Your task to perform on an android device: turn smart compose on in the gmail app Image 0: 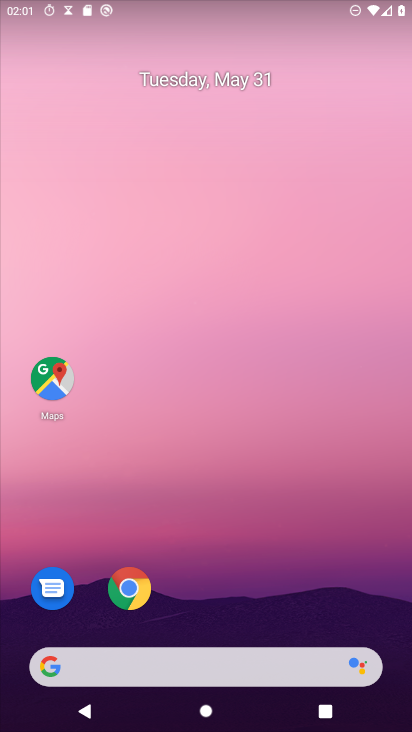
Step 0: drag from (285, 658) to (390, 26)
Your task to perform on an android device: turn smart compose on in the gmail app Image 1: 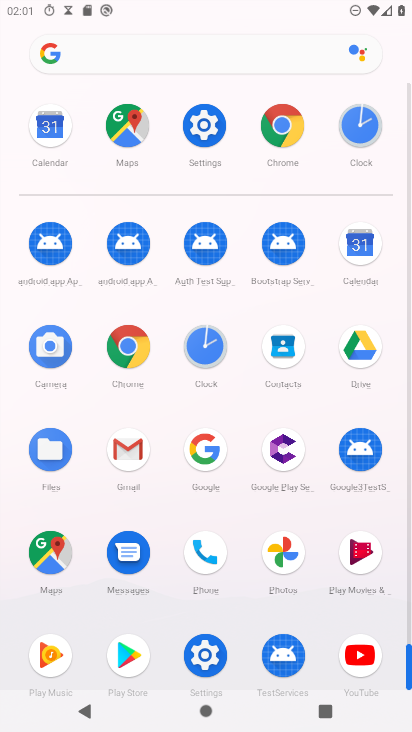
Step 1: click (127, 456)
Your task to perform on an android device: turn smart compose on in the gmail app Image 2: 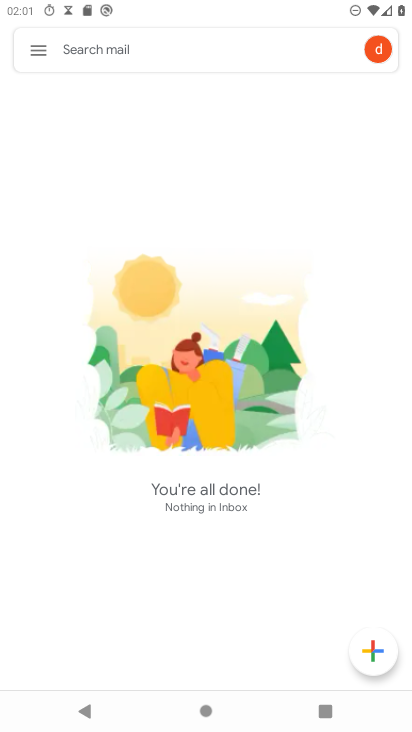
Step 2: click (48, 50)
Your task to perform on an android device: turn smart compose on in the gmail app Image 3: 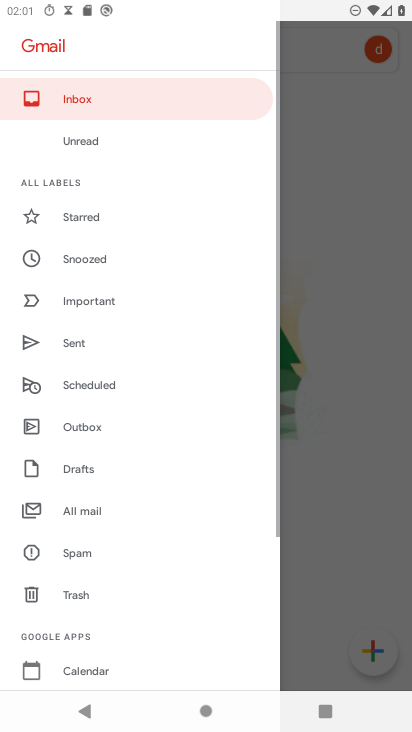
Step 3: drag from (173, 598) to (234, 77)
Your task to perform on an android device: turn smart compose on in the gmail app Image 4: 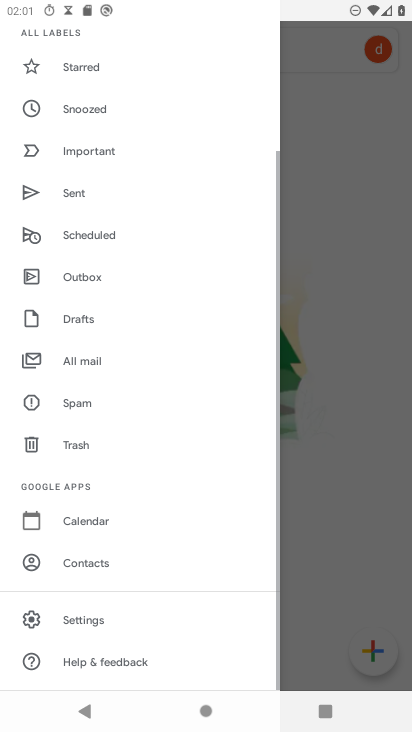
Step 4: click (166, 628)
Your task to perform on an android device: turn smart compose on in the gmail app Image 5: 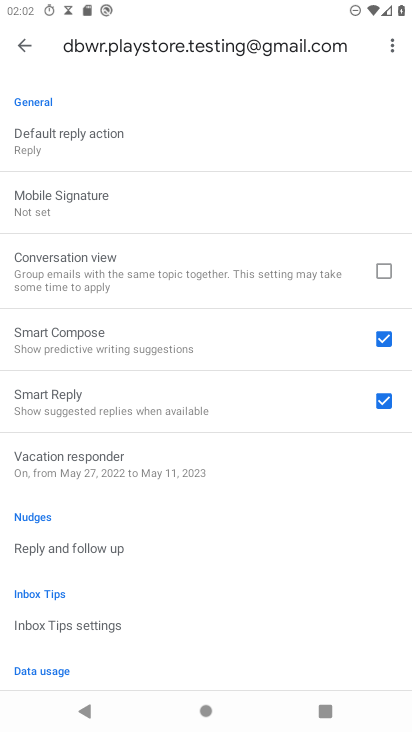
Step 5: task complete